Your task to perform on an android device: open app "Paramount+ | Peak Streaming" (install if not already installed) Image 0: 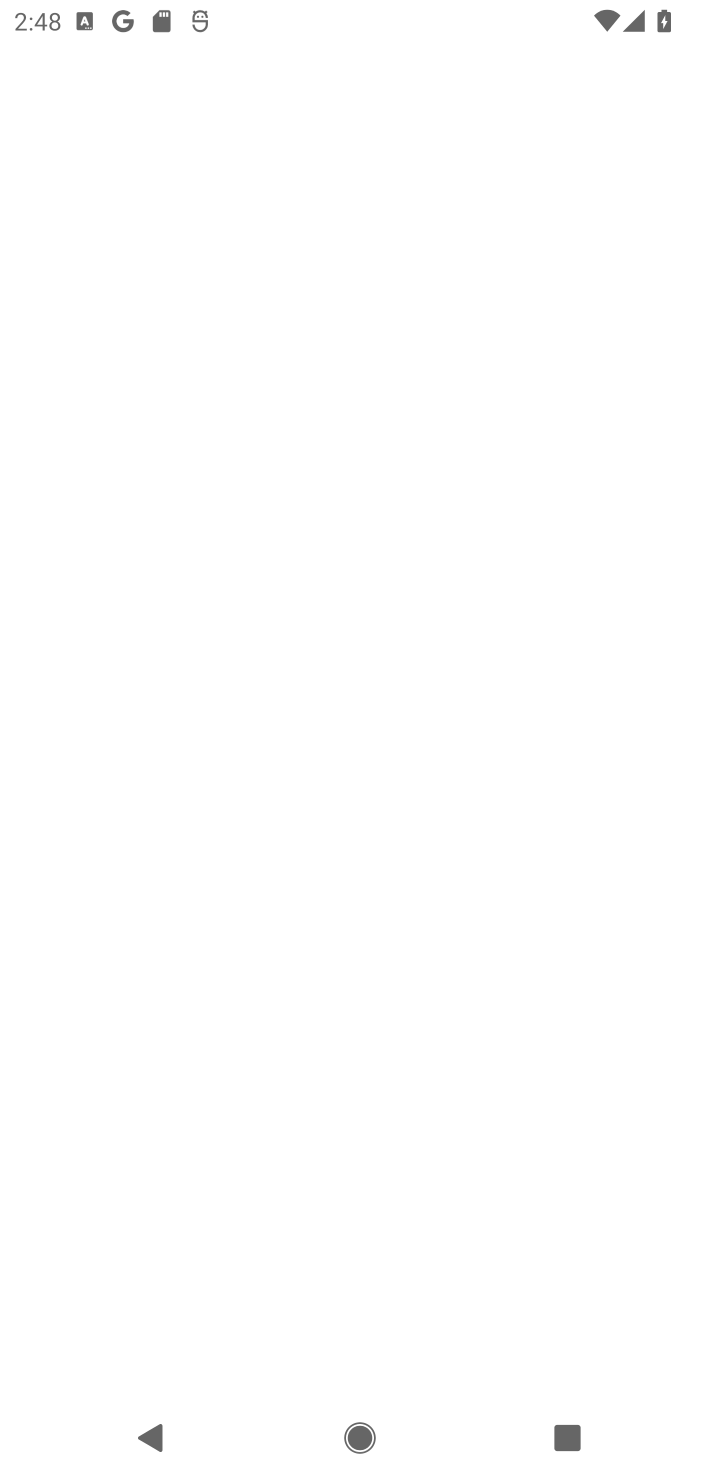
Step 0: press home button
Your task to perform on an android device: open app "Paramount+ | Peak Streaming" (install if not already installed) Image 1: 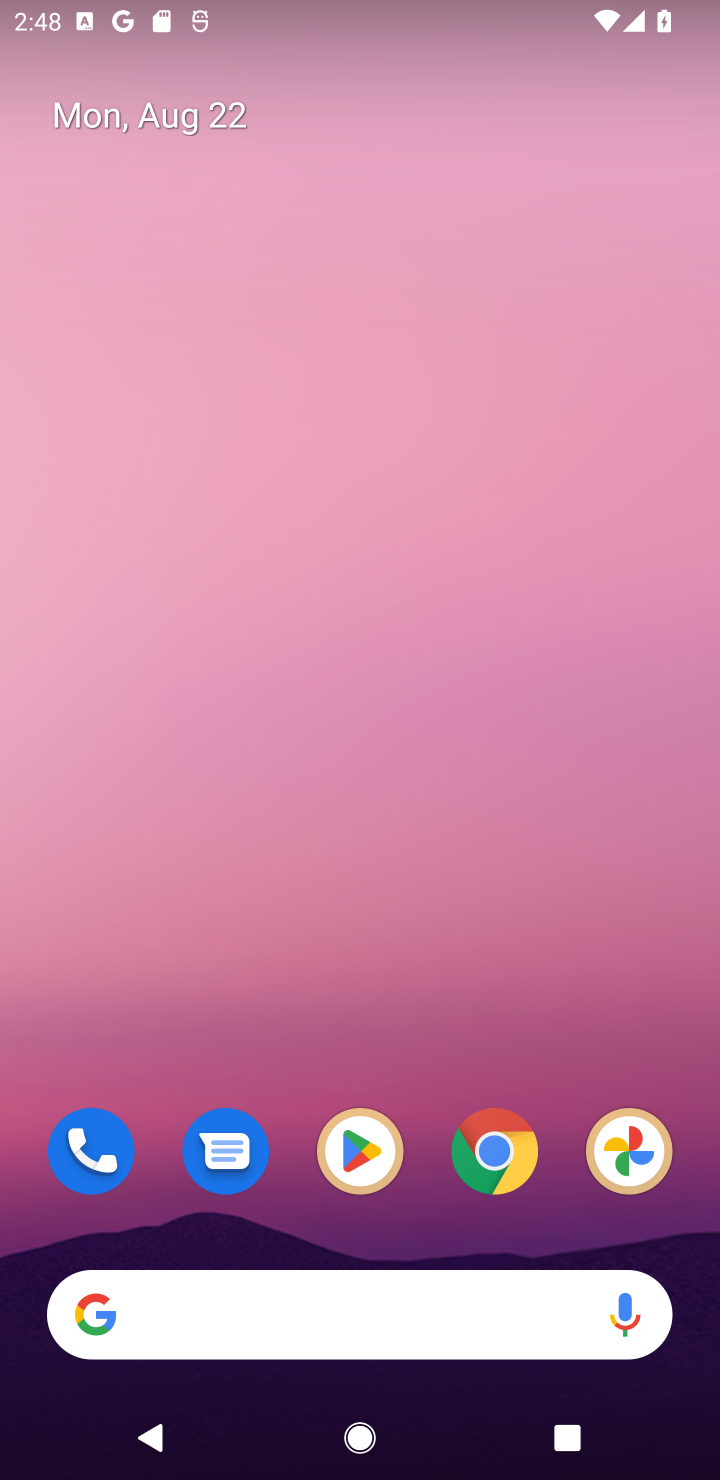
Step 1: click (343, 1150)
Your task to perform on an android device: open app "Paramount+ | Peak Streaming" (install if not already installed) Image 2: 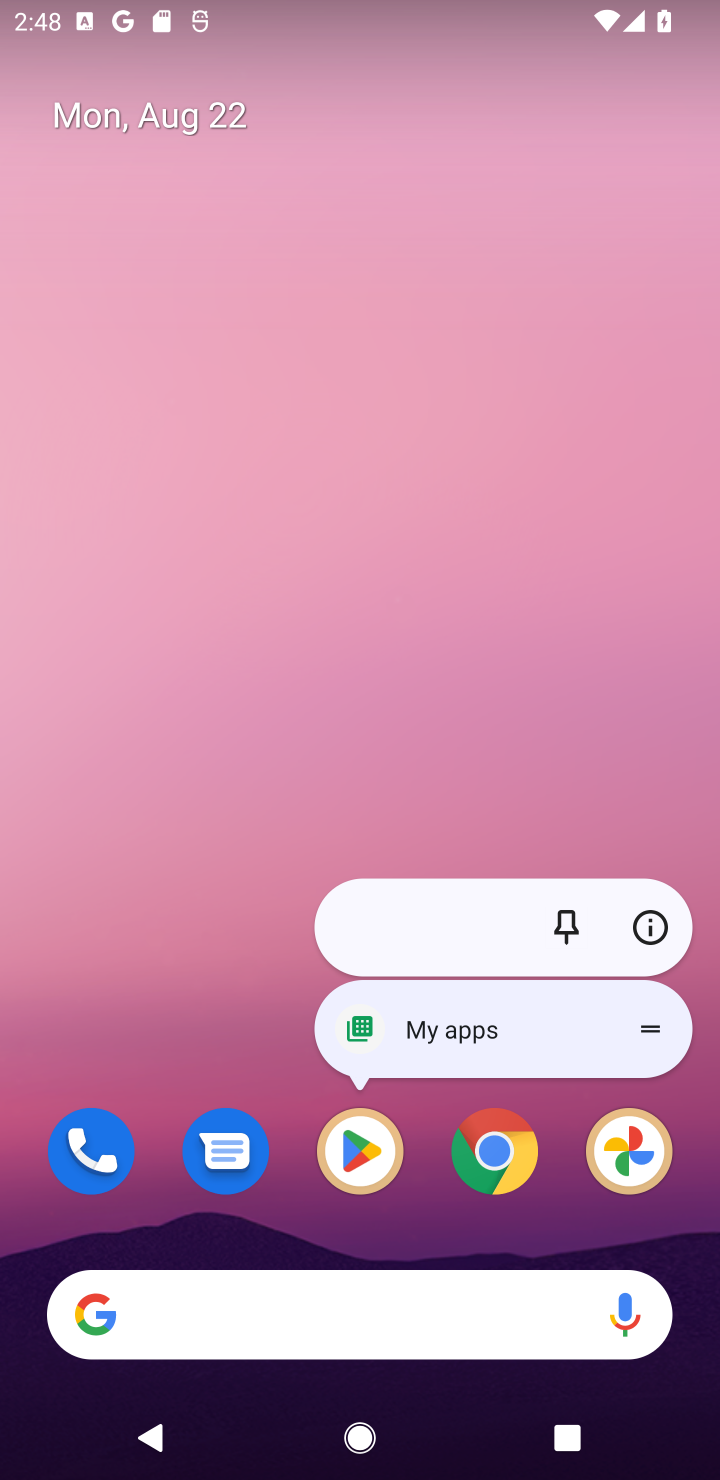
Step 2: click (353, 1148)
Your task to perform on an android device: open app "Paramount+ | Peak Streaming" (install if not already installed) Image 3: 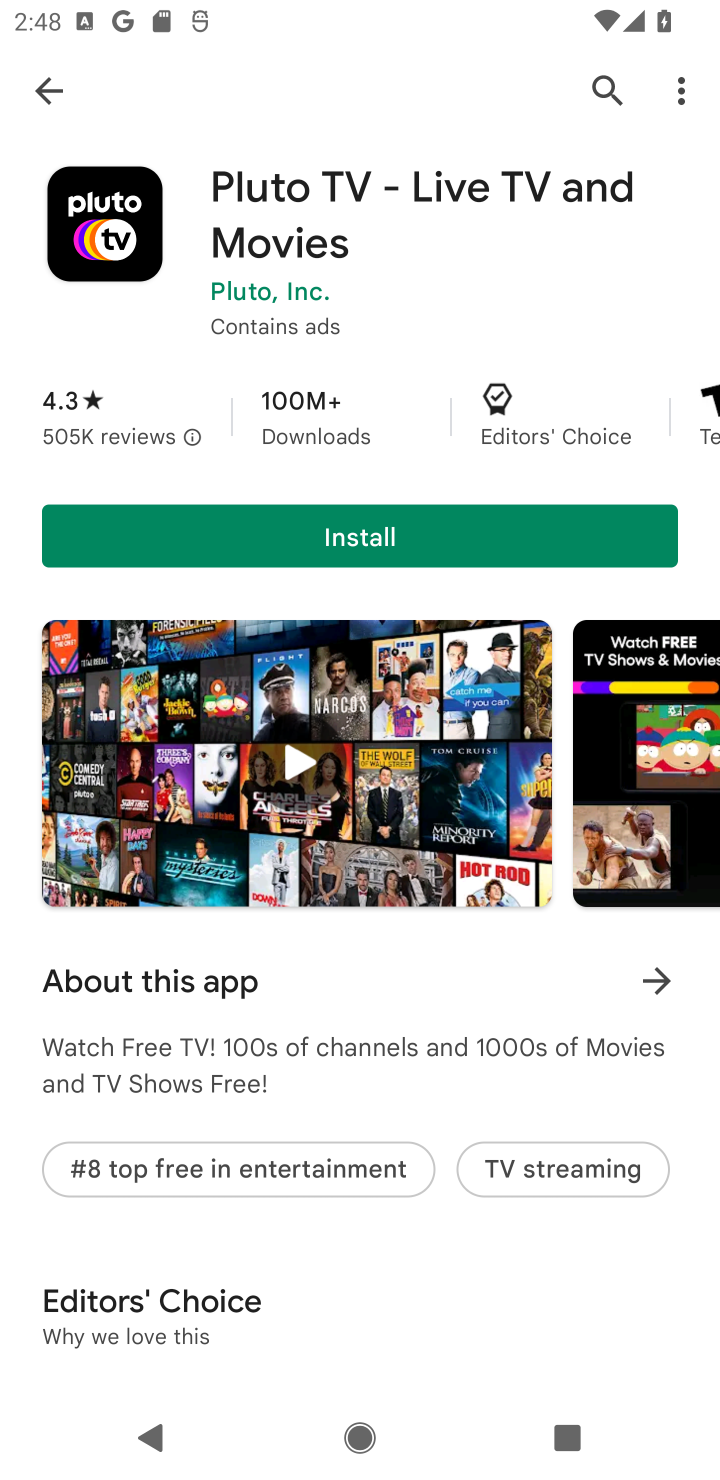
Step 3: click (609, 90)
Your task to perform on an android device: open app "Paramount+ | Peak Streaming" (install if not already installed) Image 4: 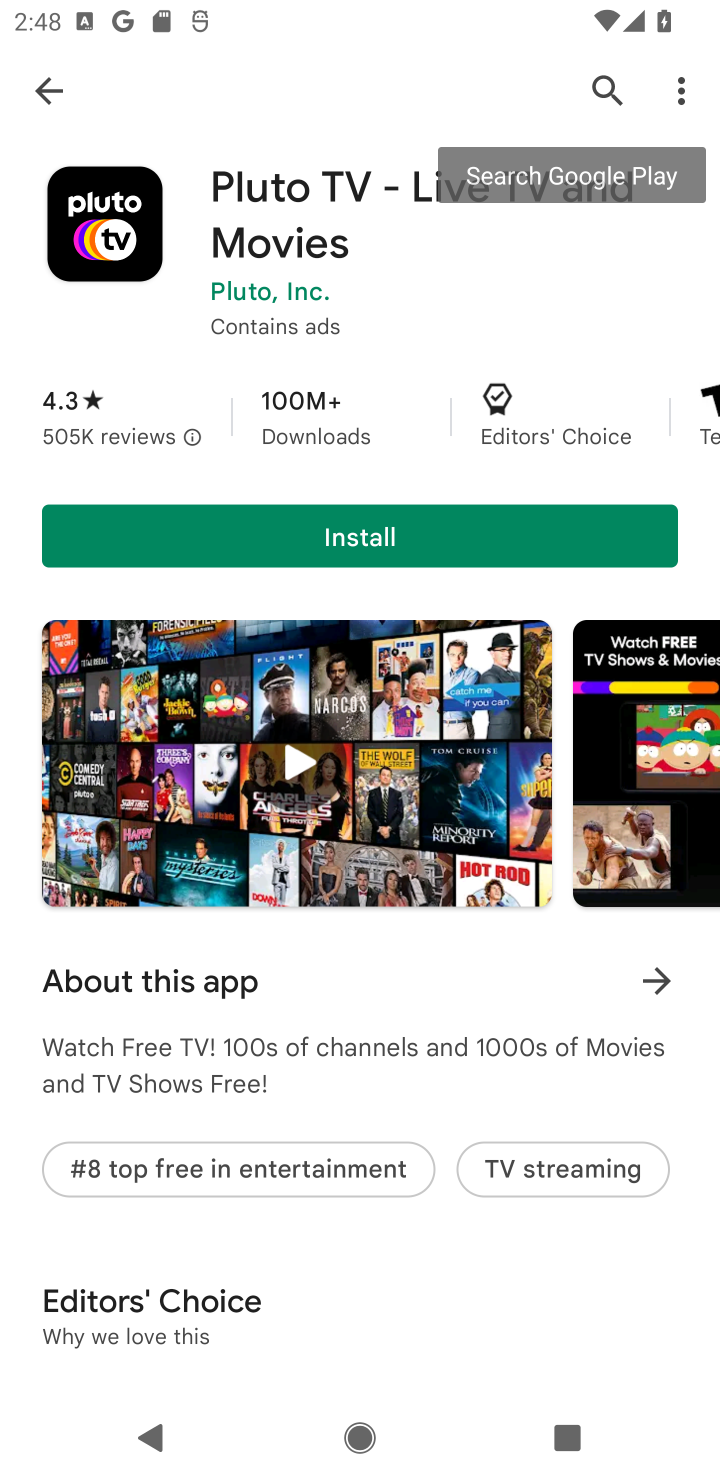
Step 4: click (602, 82)
Your task to perform on an android device: open app "Paramount+ | Peak Streaming" (install if not already installed) Image 5: 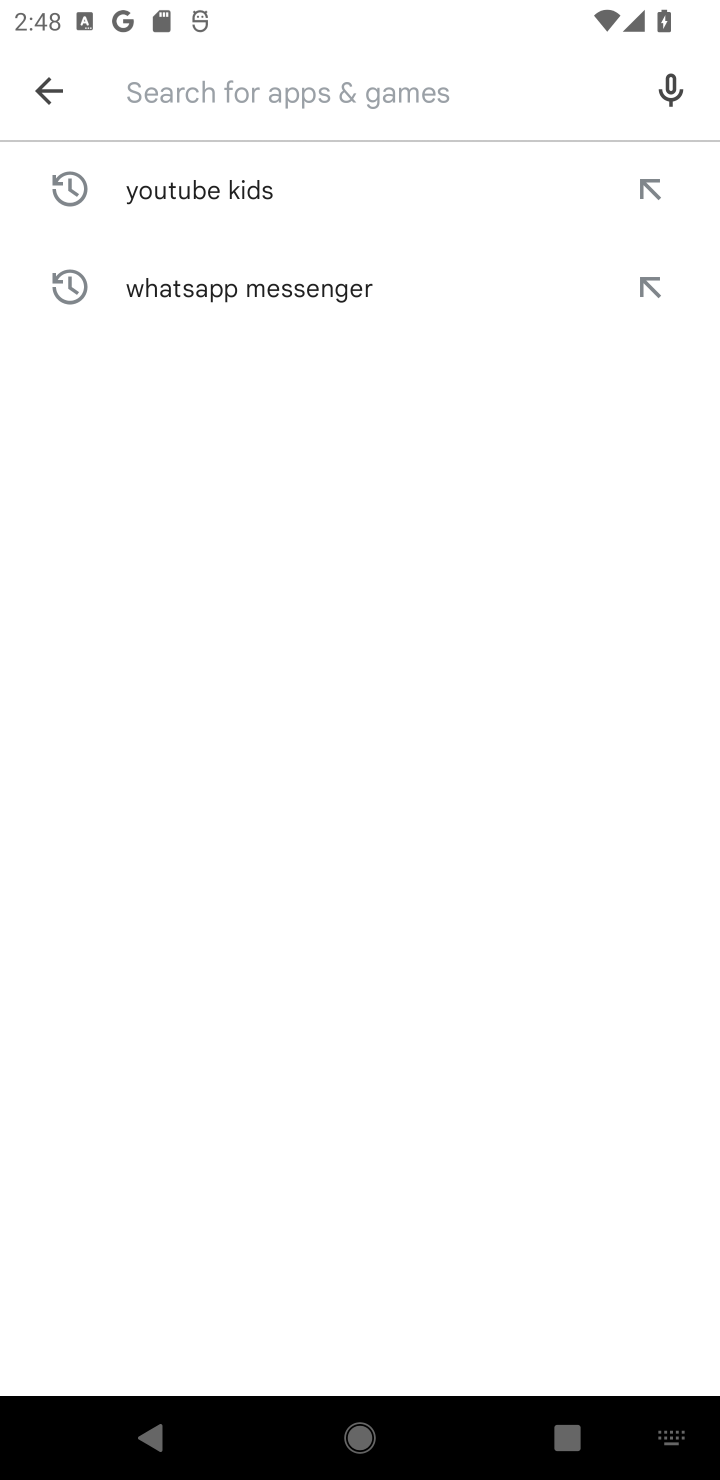
Step 5: type "Paramount+ | Peak Streaming"
Your task to perform on an android device: open app "Paramount+ | Peak Streaming" (install if not already installed) Image 6: 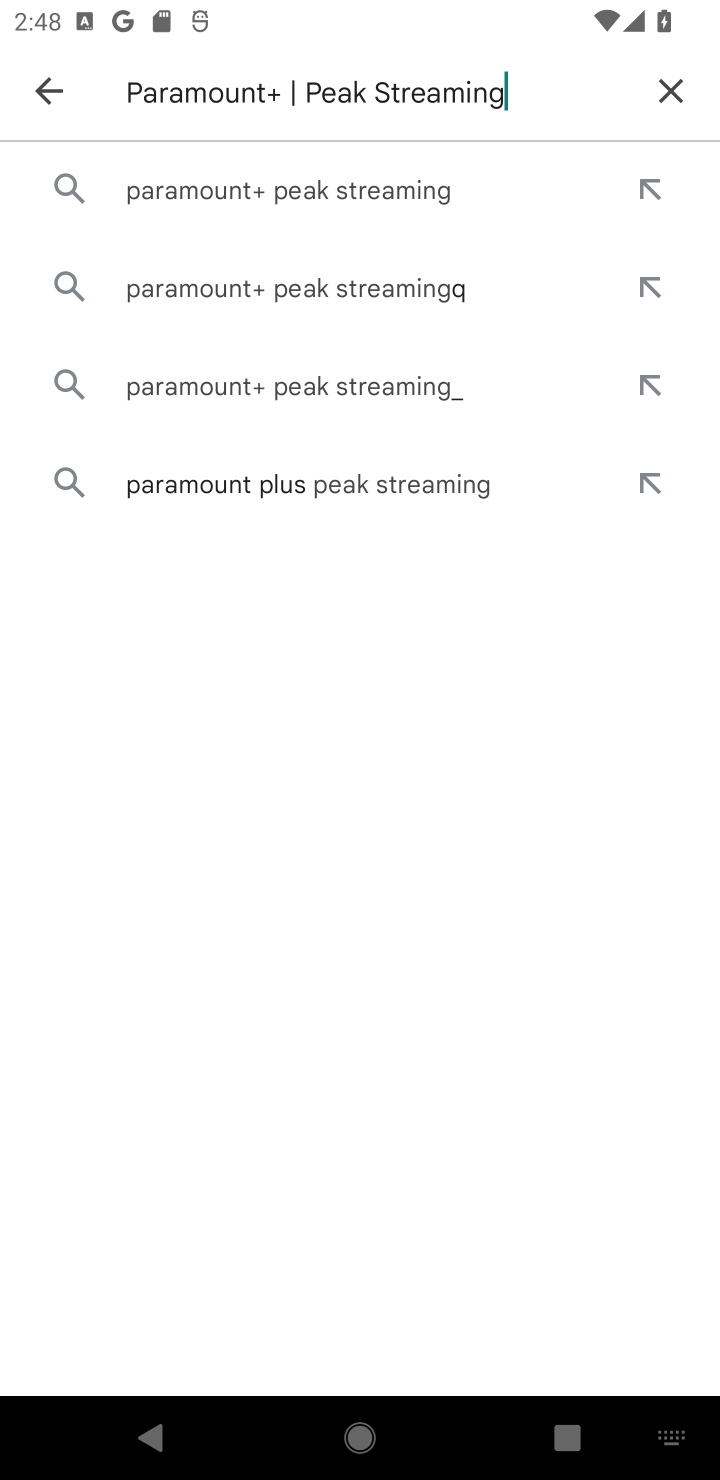
Step 6: click (409, 180)
Your task to perform on an android device: open app "Paramount+ | Peak Streaming" (install if not already installed) Image 7: 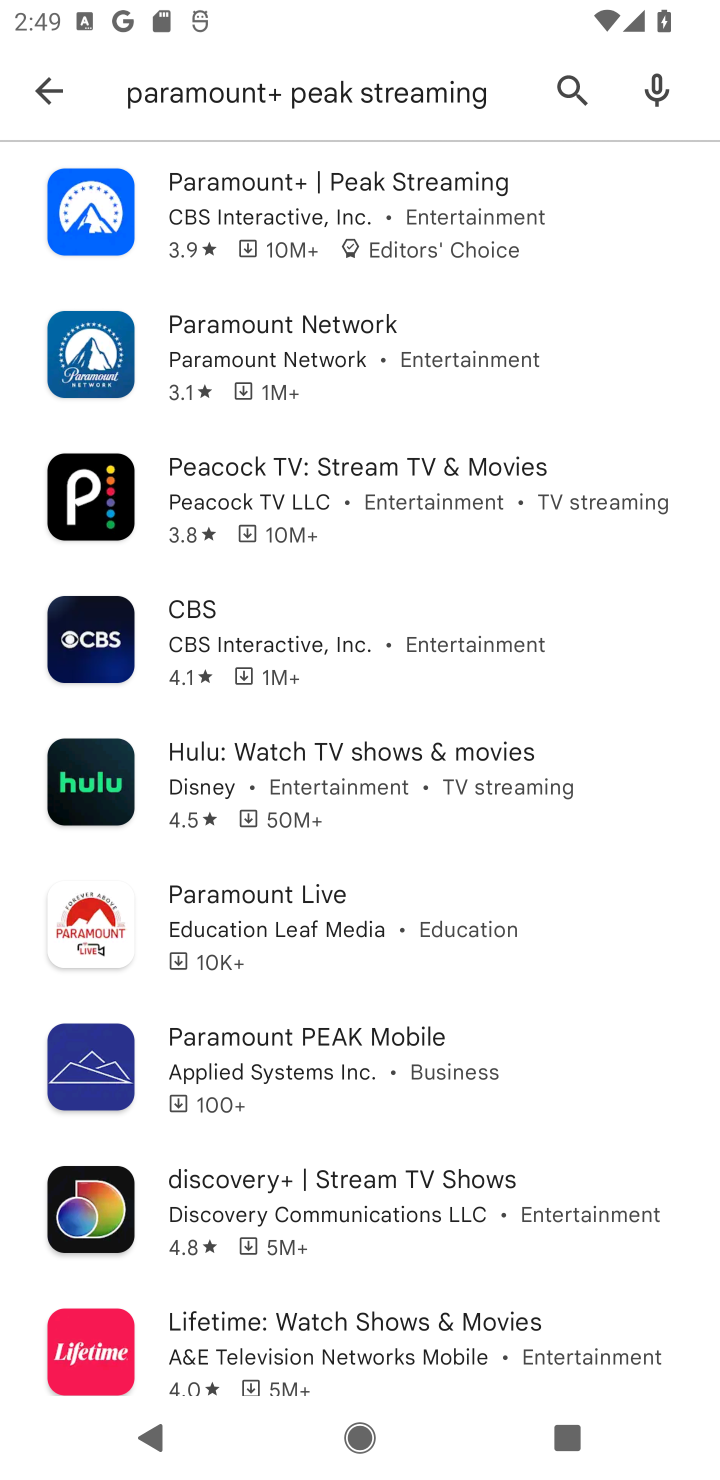
Step 7: click (391, 212)
Your task to perform on an android device: open app "Paramount+ | Peak Streaming" (install if not already installed) Image 8: 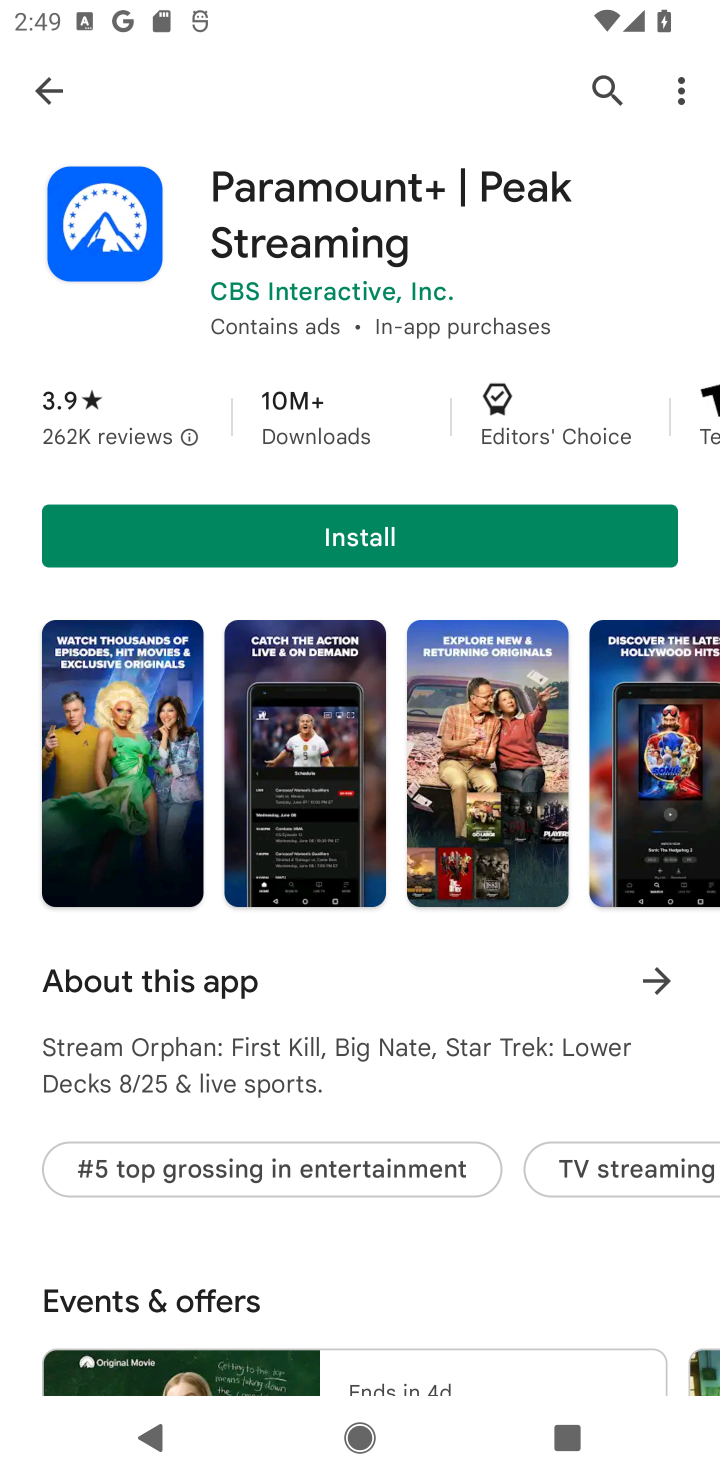
Step 8: click (353, 539)
Your task to perform on an android device: open app "Paramount+ | Peak Streaming" (install if not already installed) Image 9: 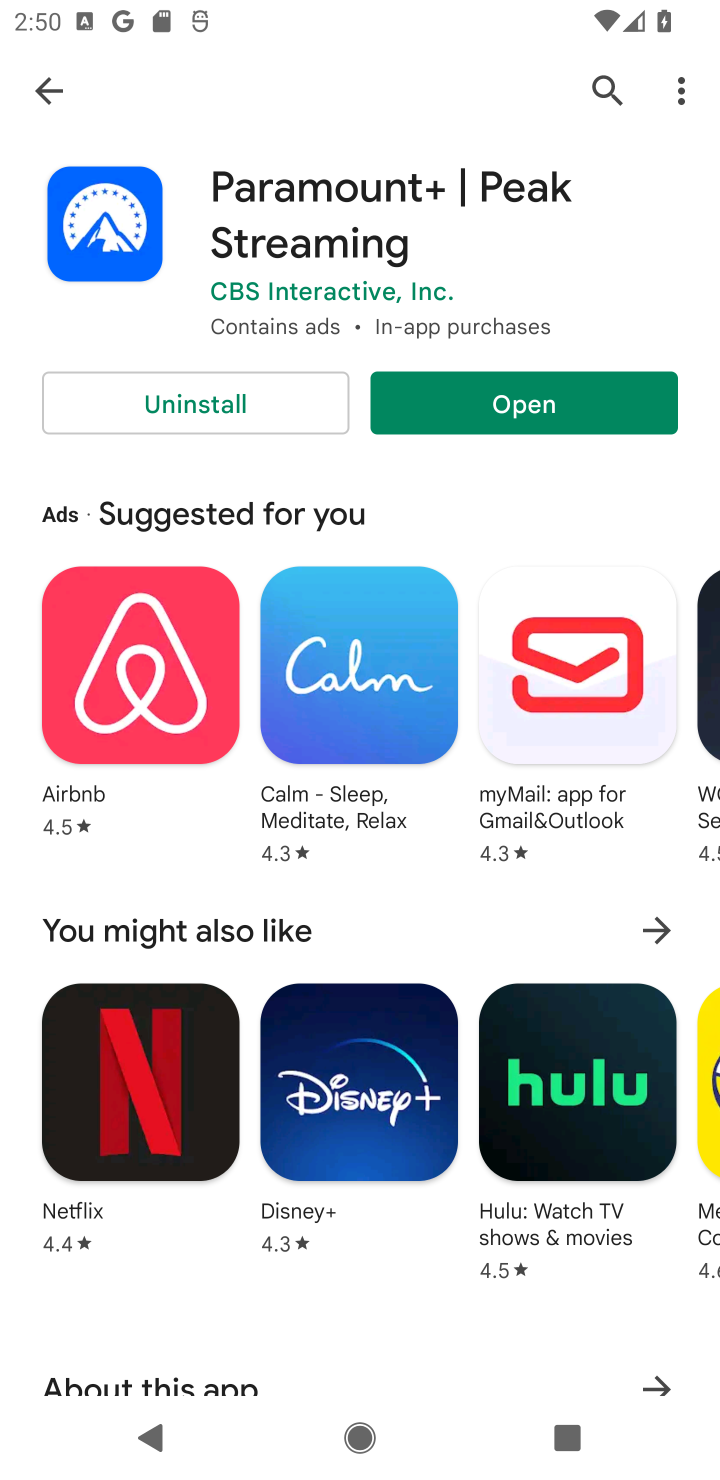
Step 9: click (520, 404)
Your task to perform on an android device: open app "Paramount+ | Peak Streaming" (install if not already installed) Image 10: 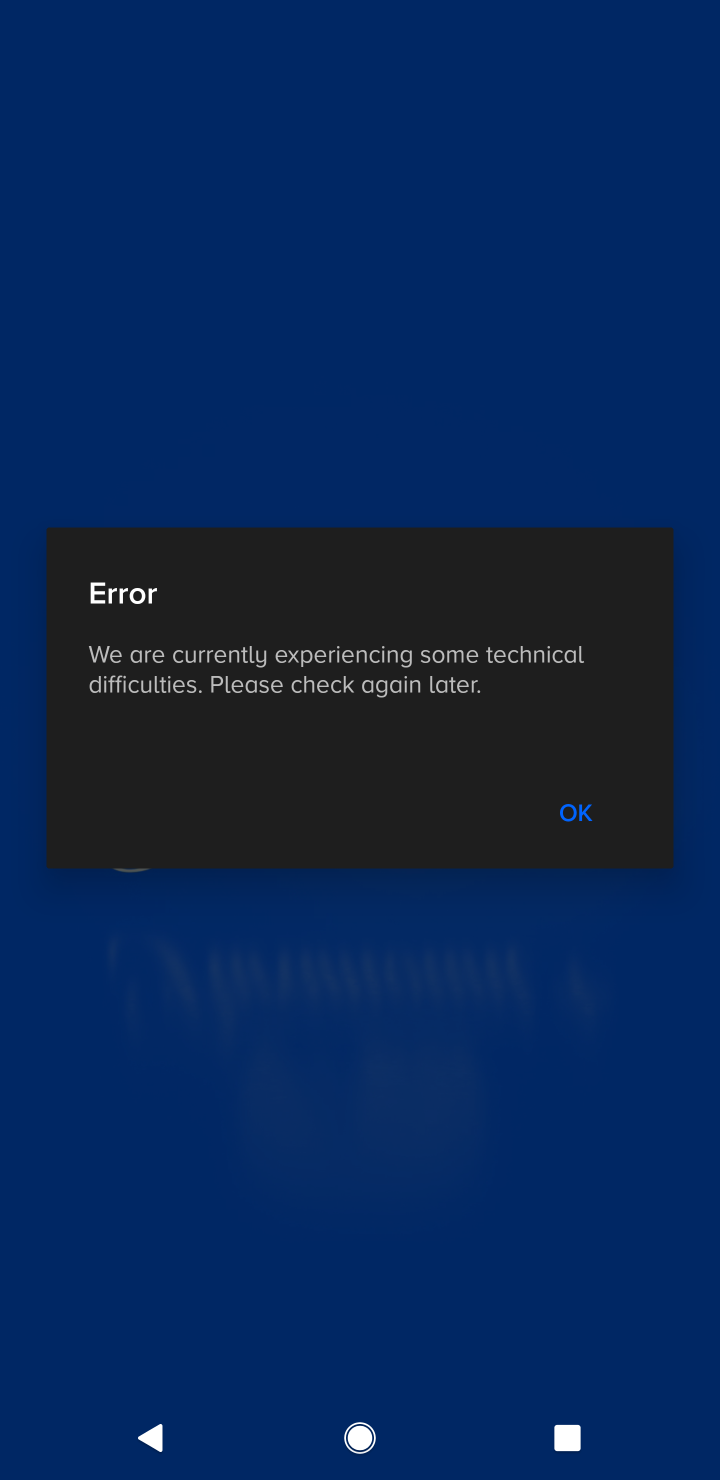
Step 10: click (571, 816)
Your task to perform on an android device: open app "Paramount+ | Peak Streaming" (install if not already installed) Image 11: 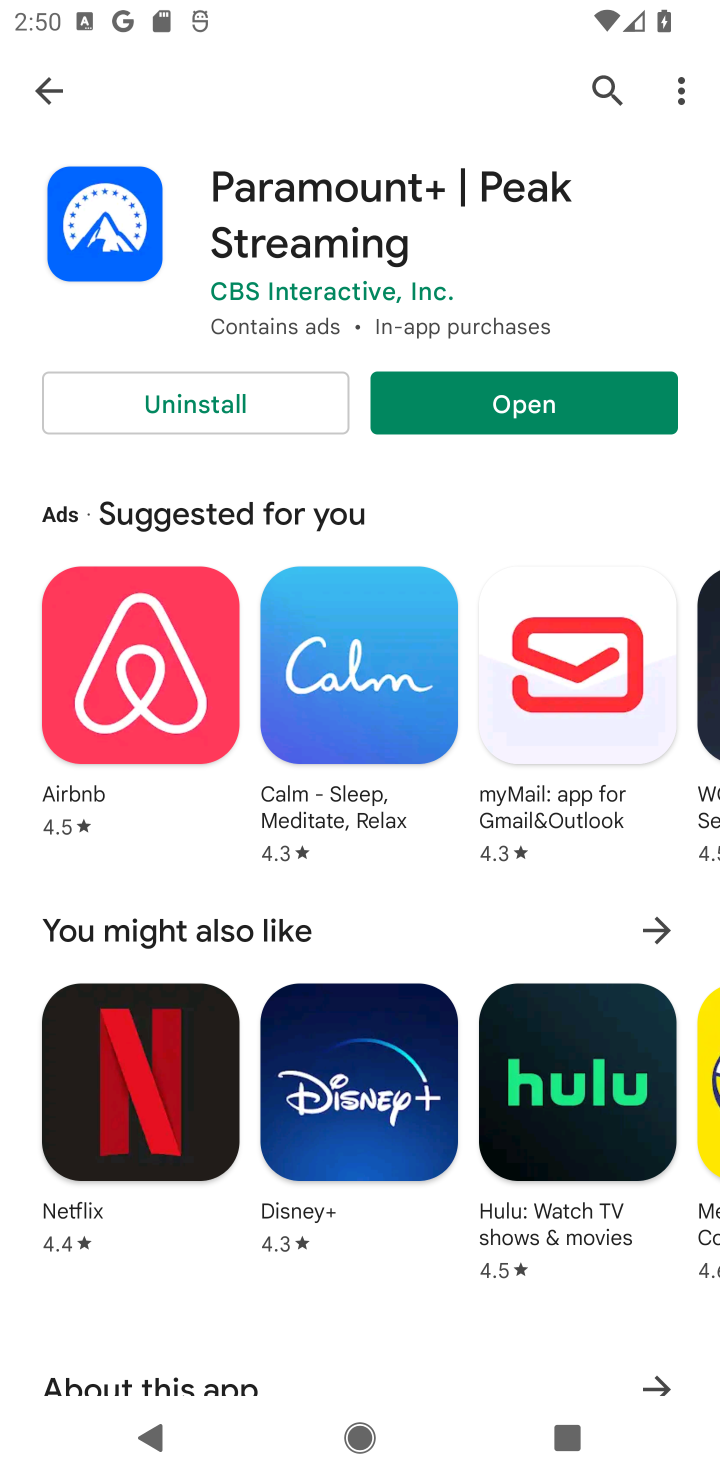
Step 11: task complete